Your task to perform on an android device: install app "VLC for Android" Image 0: 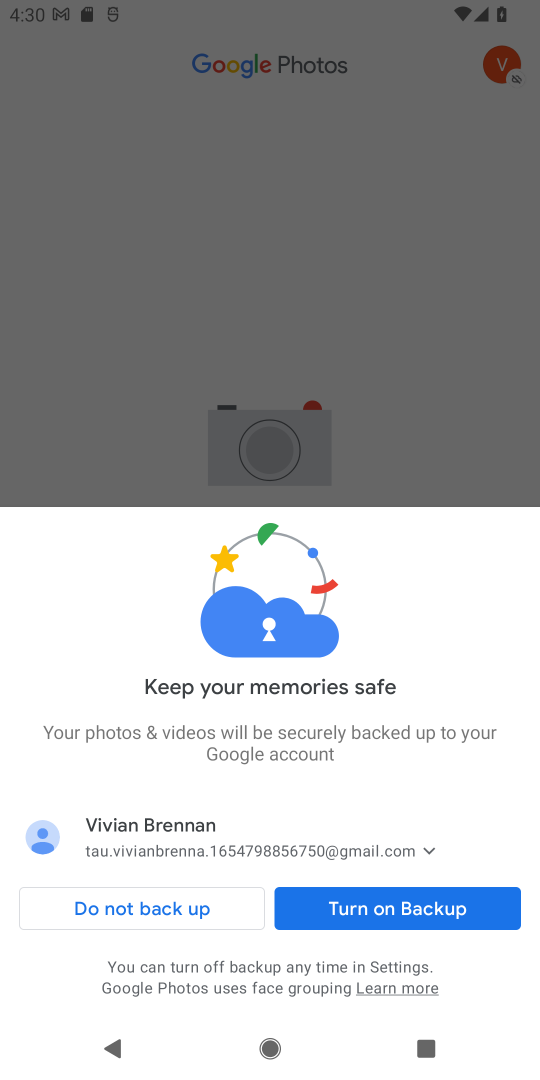
Step 0: press home button
Your task to perform on an android device: install app "VLC for Android" Image 1: 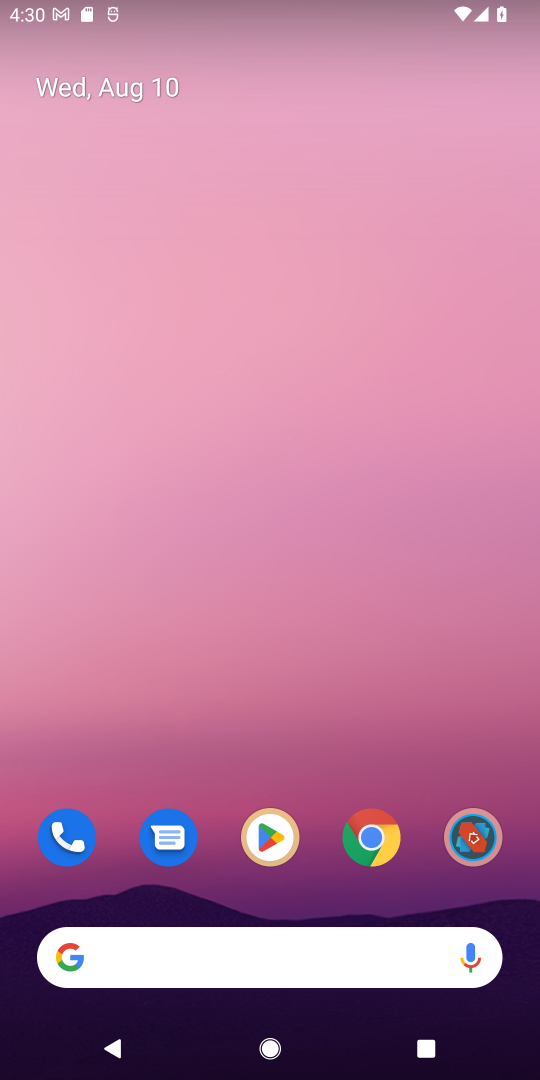
Step 1: click (270, 831)
Your task to perform on an android device: install app "VLC for Android" Image 2: 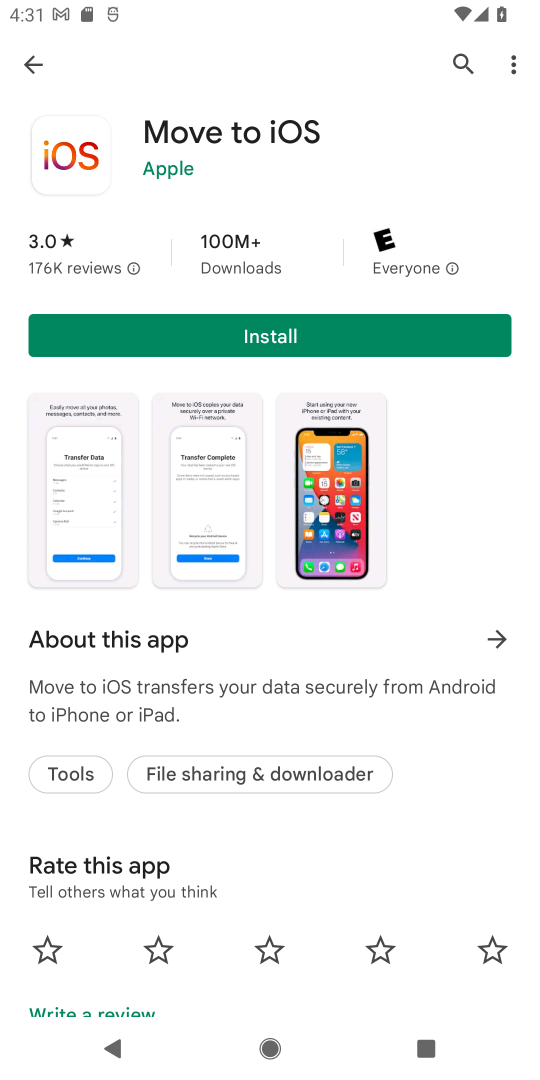
Step 2: click (463, 45)
Your task to perform on an android device: install app "VLC for Android" Image 3: 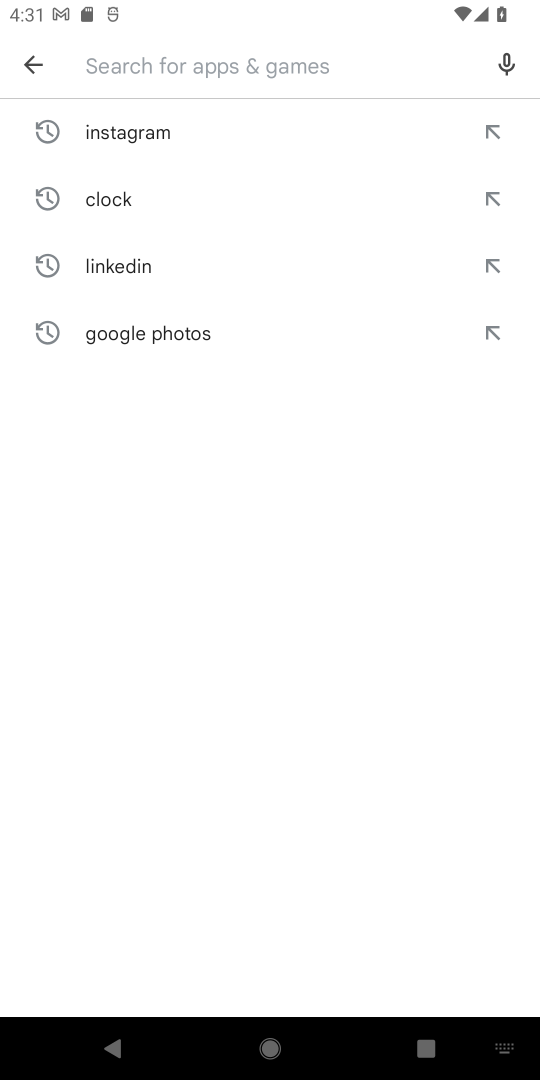
Step 3: type "VLC for Android"
Your task to perform on an android device: install app "VLC for Android" Image 4: 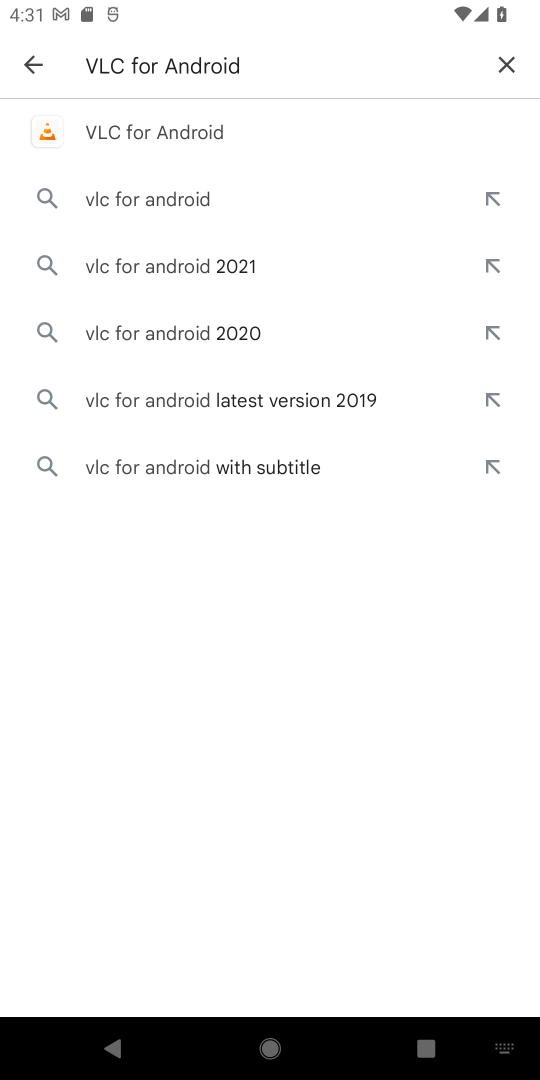
Step 4: click (156, 132)
Your task to perform on an android device: install app "VLC for Android" Image 5: 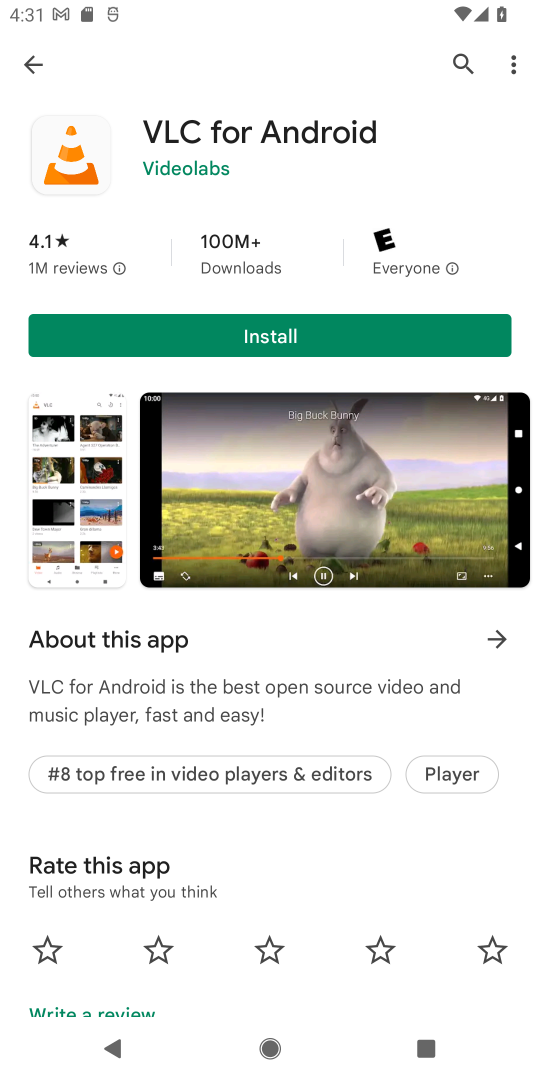
Step 5: click (273, 335)
Your task to perform on an android device: install app "VLC for Android" Image 6: 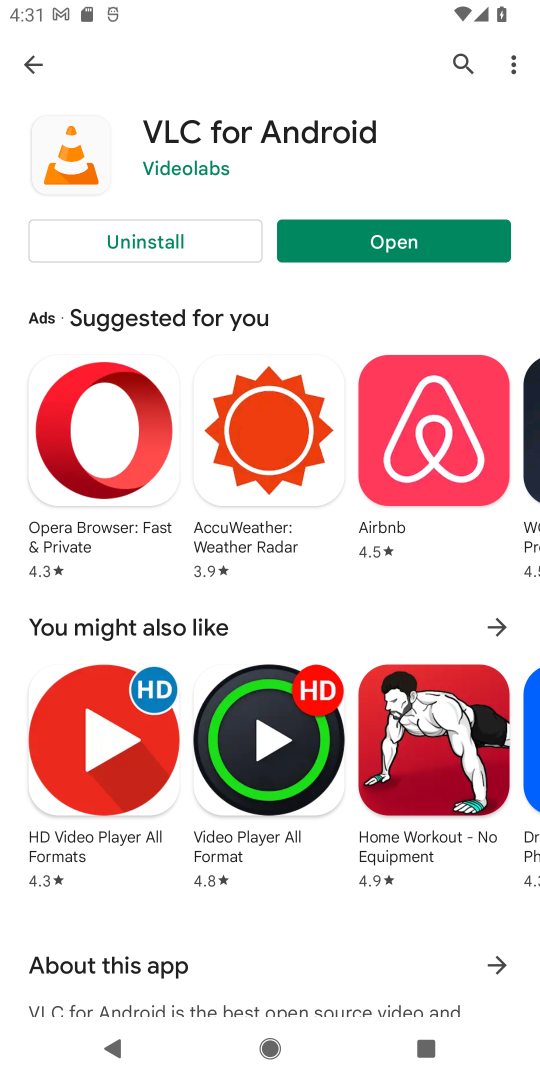
Step 6: task complete